Your task to perform on an android device: Do I have any events this weekend? Image 0: 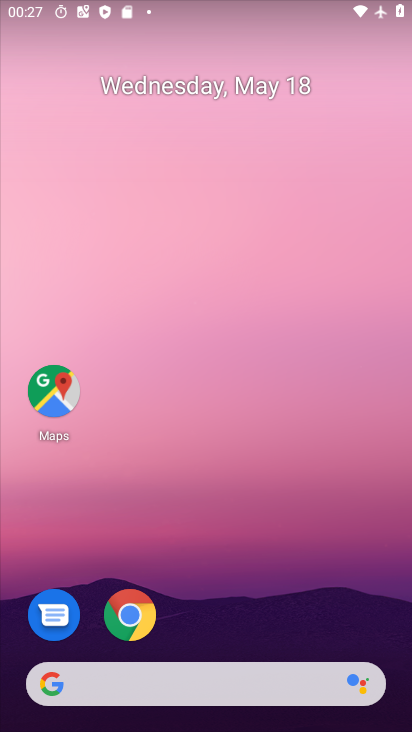
Step 0: drag from (236, 637) to (210, 227)
Your task to perform on an android device: Do I have any events this weekend? Image 1: 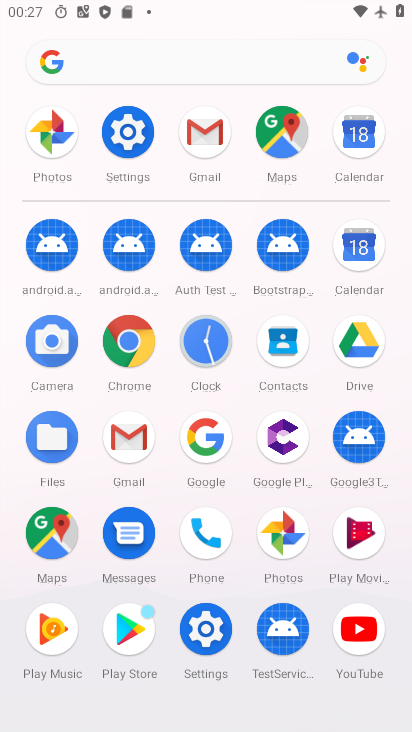
Step 1: click (351, 275)
Your task to perform on an android device: Do I have any events this weekend? Image 2: 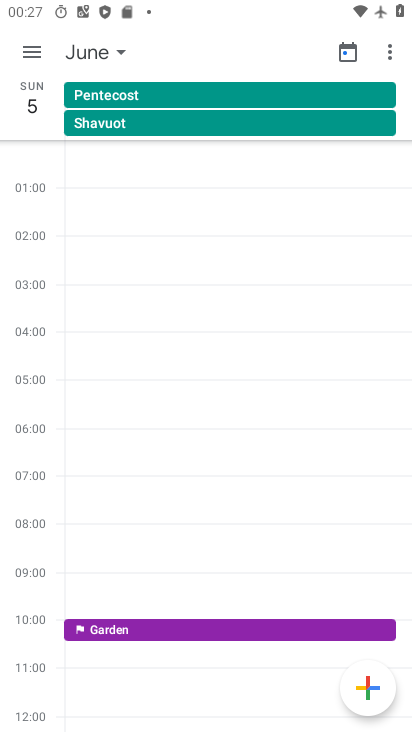
Step 2: click (104, 58)
Your task to perform on an android device: Do I have any events this weekend? Image 3: 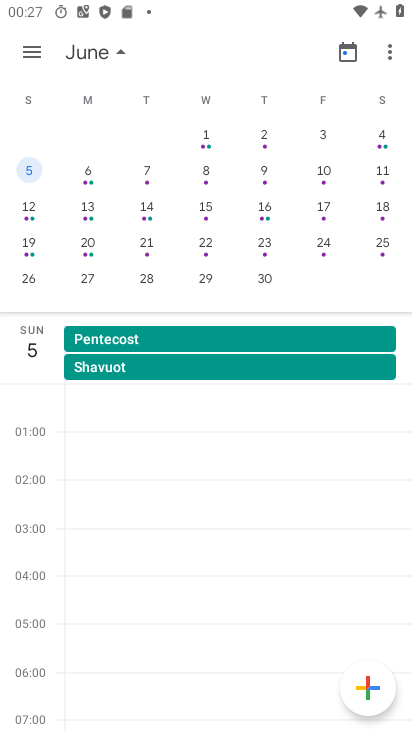
Step 3: click (367, 170)
Your task to perform on an android device: Do I have any events this weekend? Image 4: 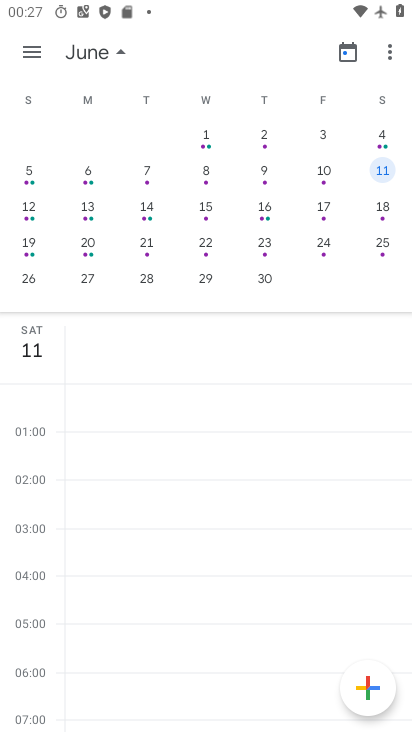
Step 4: task complete